Your task to perform on an android device: turn off picture-in-picture Image 0: 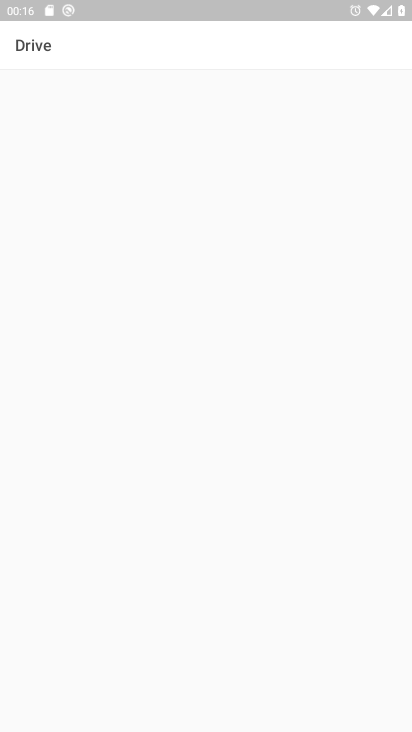
Step 0: press home button
Your task to perform on an android device: turn off picture-in-picture Image 1: 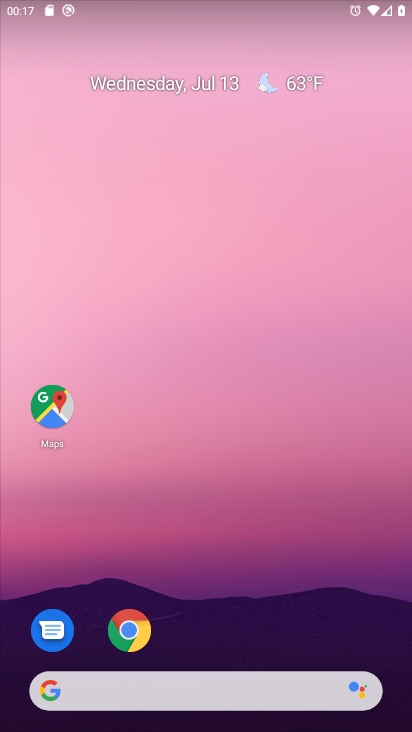
Step 1: click (134, 636)
Your task to perform on an android device: turn off picture-in-picture Image 2: 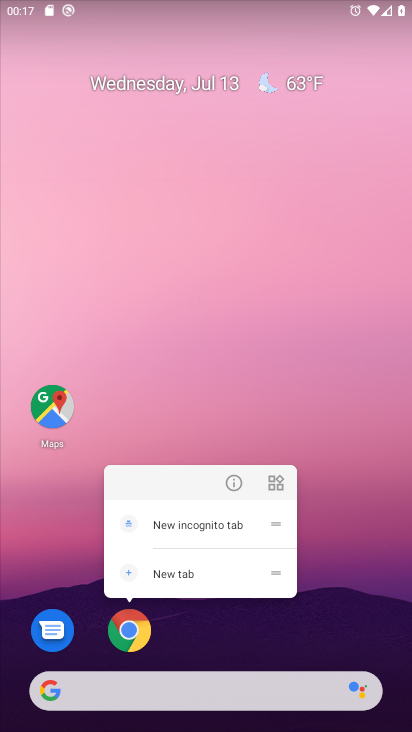
Step 2: click (235, 488)
Your task to perform on an android device: turn off picture-in-picture Image 3: 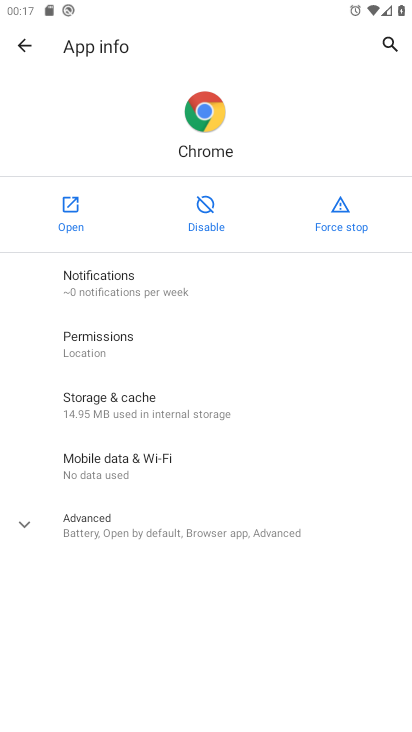
Step 3: click (133, 533)
Your task to perform on an android device: turn off picture-in-picture Image 4: 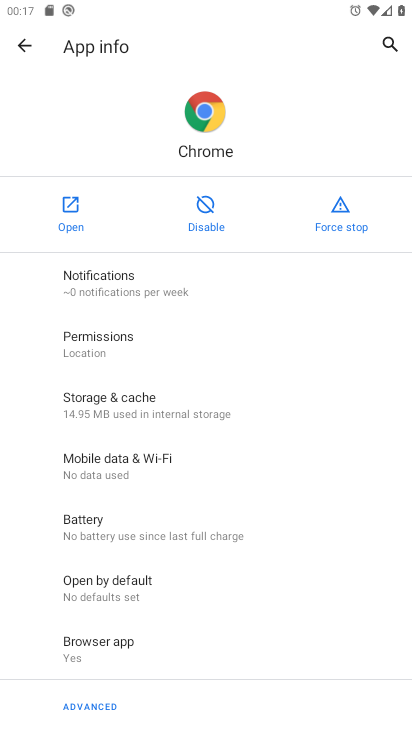
Step 4: drag from (148, 641) to (154, 160)
Your task to perform on an android device: turn off picture-in-picture Image 5: 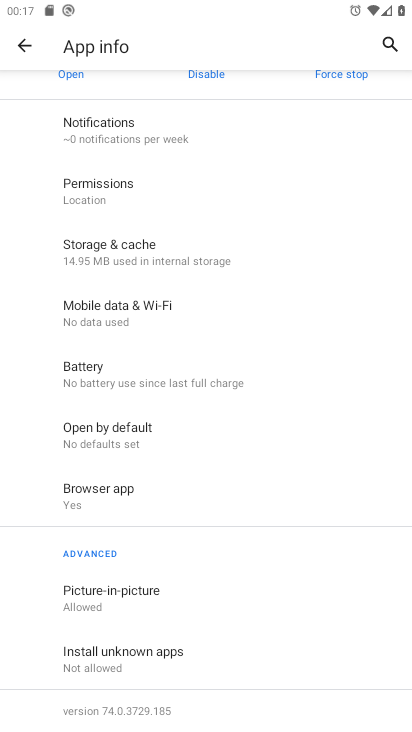
Step 5: click (108, 593)
Your task to perform on an android device: turn off picture-in-picture Image 6: 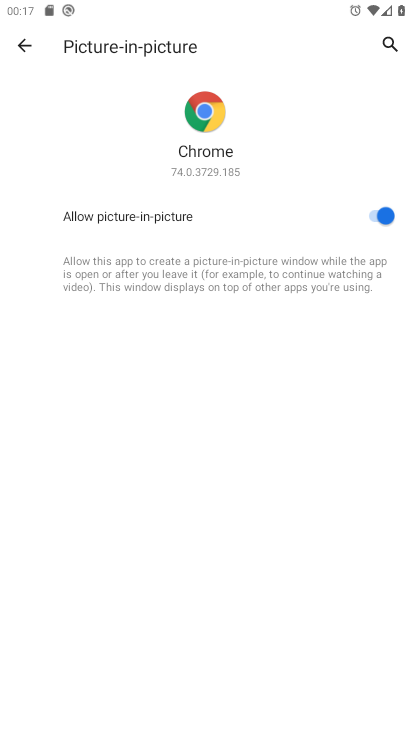
Step 6: click (378, 219)
Your task to perform on an android device: turn off picture-in-picture Image 7: 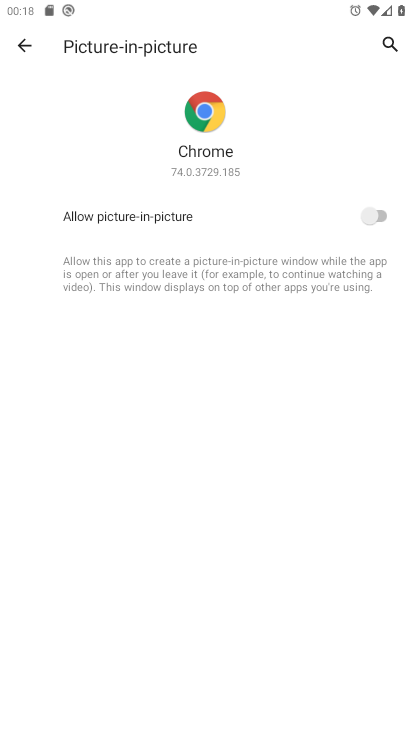
Step 7: task complete